Your task to perform on an android device: toggle sleep mode Image 0: 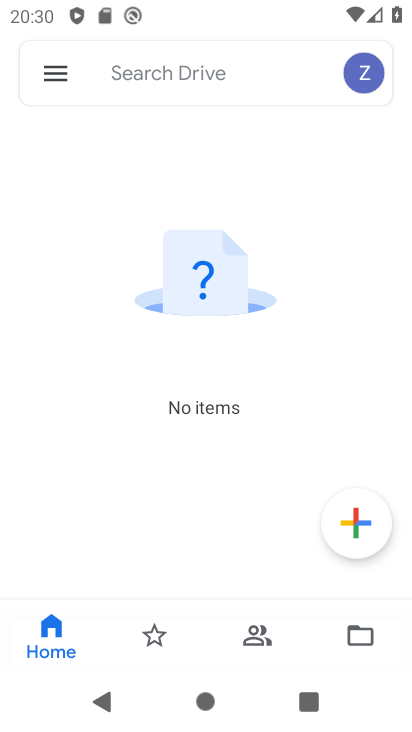
Step 0: press home button
Your task to perform on an android device: toggle sleep mode Image 1: 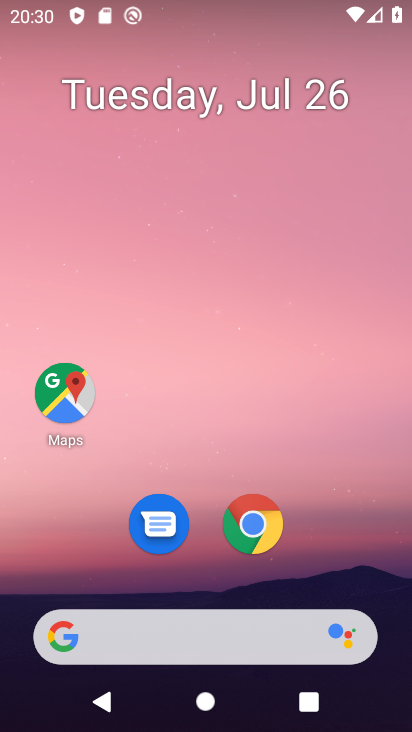
Step 1: drag from (202, 637) to (358, 161)
Your task to perform on an android device: toggle sleep mode Image 2: 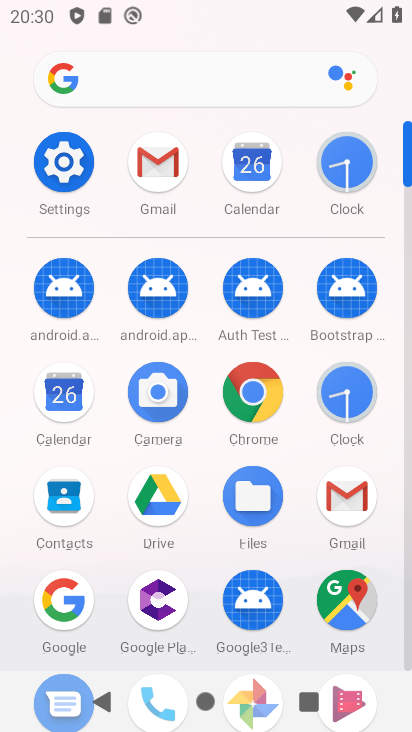
Step 2: click (76, 163)
Your task to perform on an android device: toggle sleep mode Image 3: 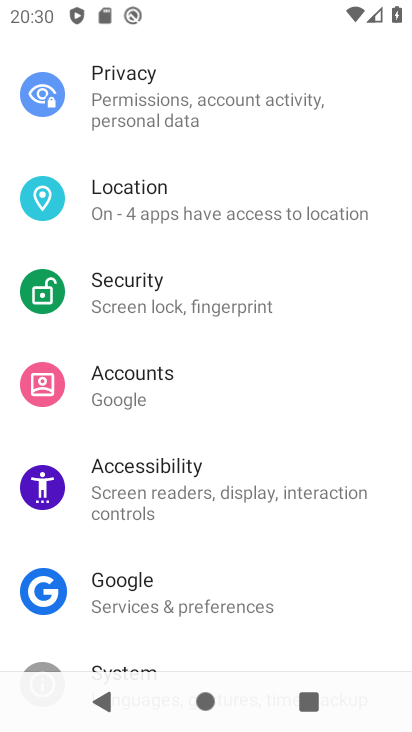
Step 3: drag from (297, 141) to (218, 621)
Your task to perform on an android device: toggle sleep mode Image 4: 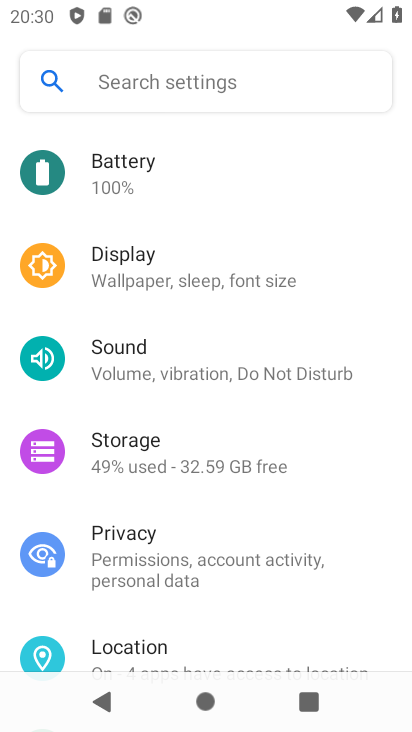
Step 4: click (140, 251)
Your task to perform on an android device: toggle sleep mode Image 5: 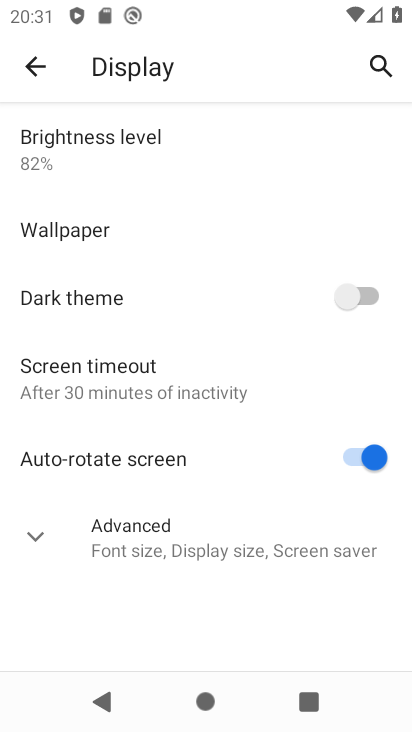
Step 5: task complete